Your task to perform on an android device: Go to Google maps Image 0: 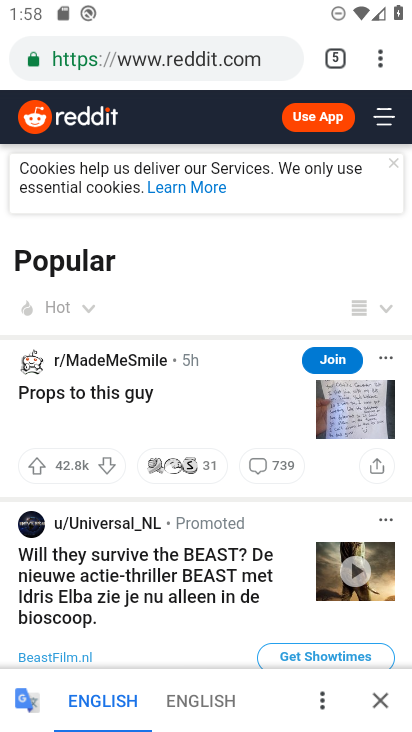
Step 0: press home button
Your task to perform on an android device: Go to Google maps Image 1: 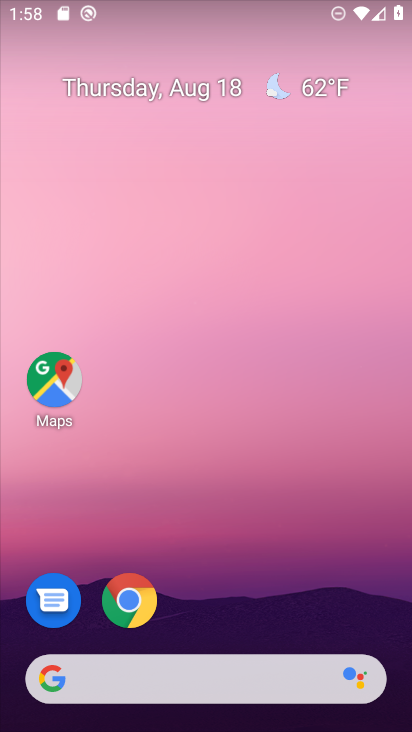
Step 1: click (56, 387)
Your task to perform on an android device: Go to Google maps Image 2: 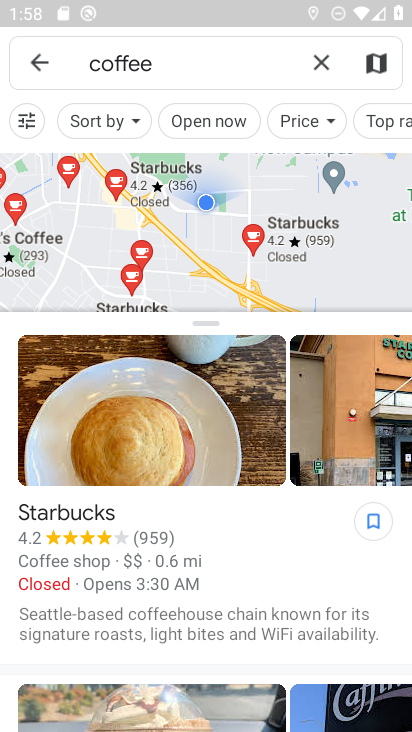
Step 2: click (38, 56)
Your task to perform on an android device: Go to Google maps Image 3: 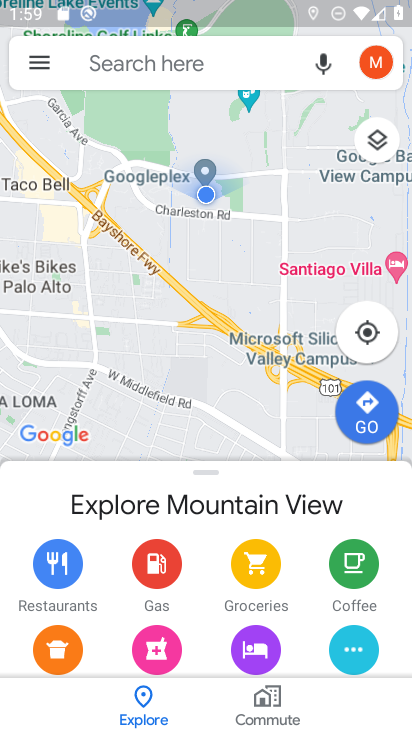
Step 3: task complete